Your task to perform on an android device: Search for a new phone on Amazon. Image 0: 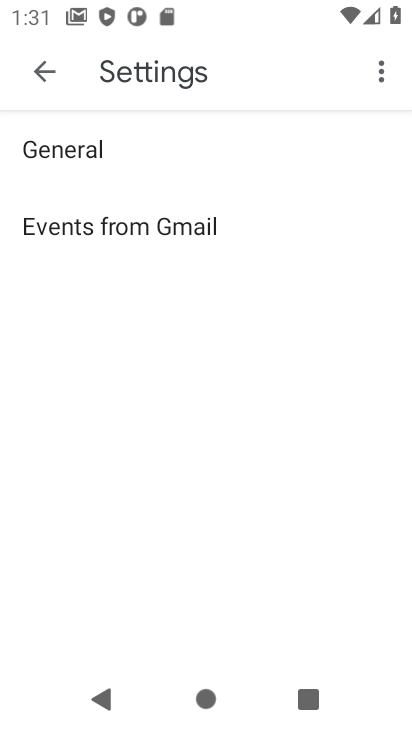
Step 0: press home button
Your task to perform on an android device: Search for a new phone on Amazon. Image 1: 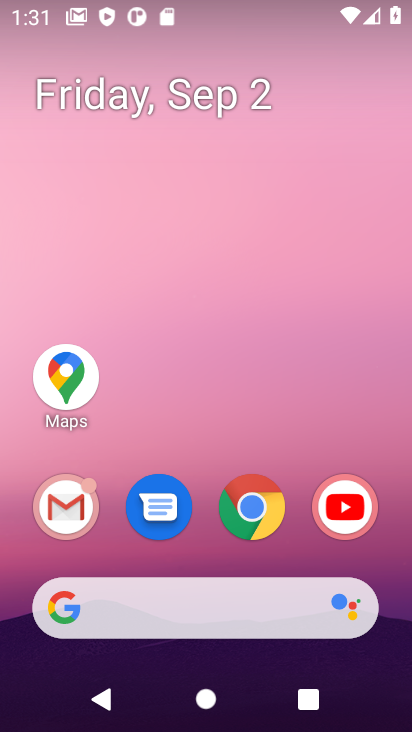
Step 1: click (264, 518)
Your task to perform on an android device: Search for a new phone on Amazon. Image 2: 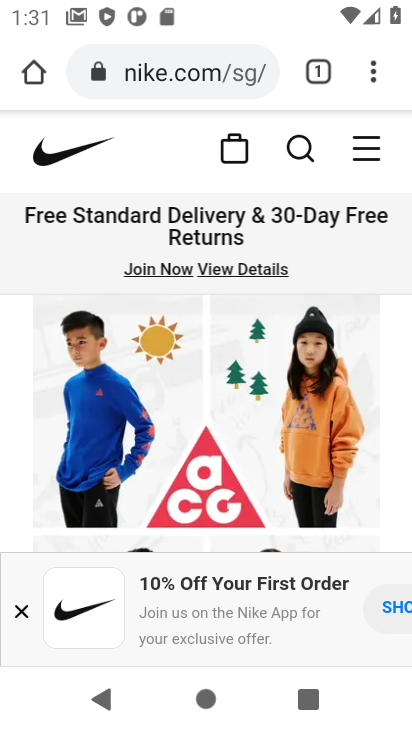
Step 2: click (227, 73)
Your task to perform on an android device: Search for a new phone on Amazon. Image 3: 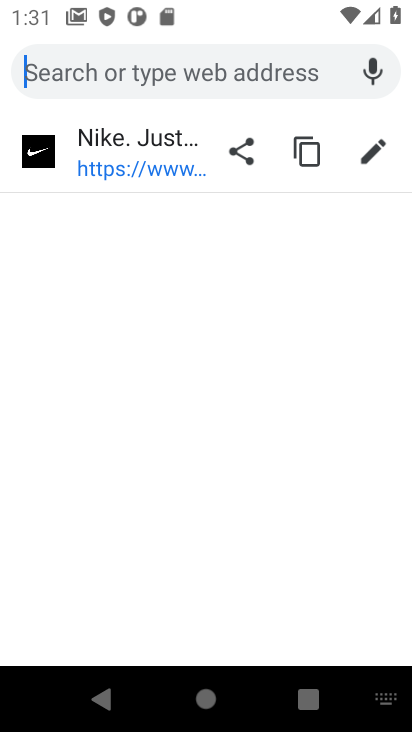
Step 3: type "amazone"
Your task to perform on an android device: Search for a new phone on Amazon. Image 4: 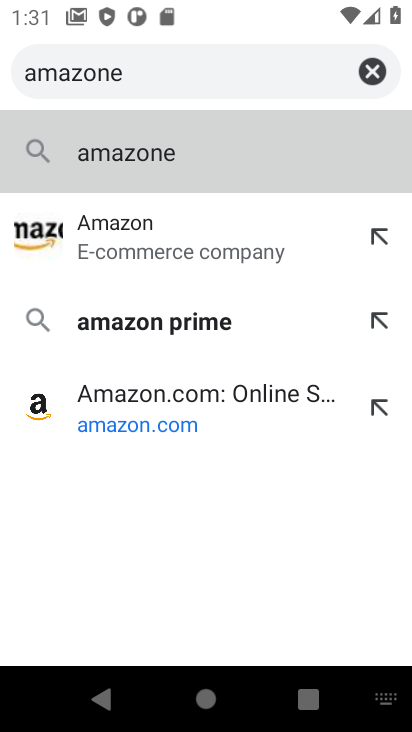
Step 4: click (151, 222)
Your task to perform on an android device: Search for a new phone on Amazon. Image 5: 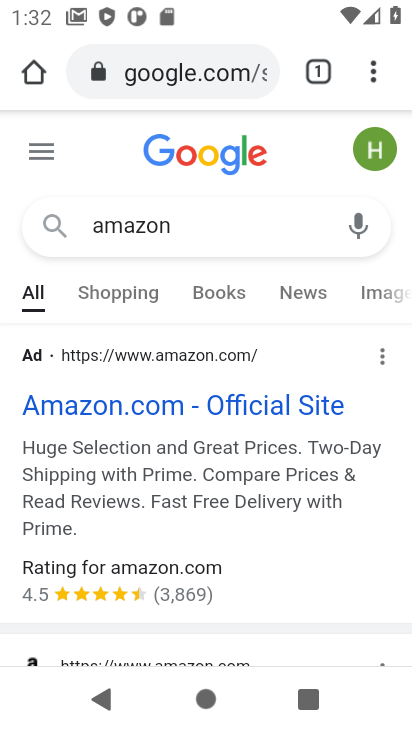
Step 5: click (152, 391)
Your task to perform on an android device: Search for a new phone on Amazon. Image 6: 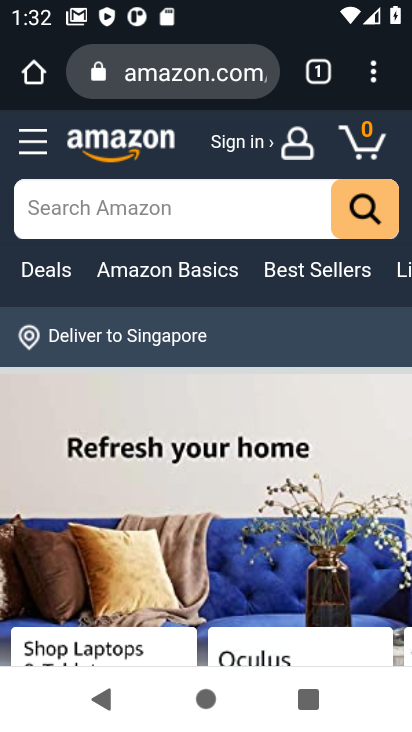
Step 6: click (180, 222)
Your task to perform on an android device: Search for a new phone on Amazon. Image 7: 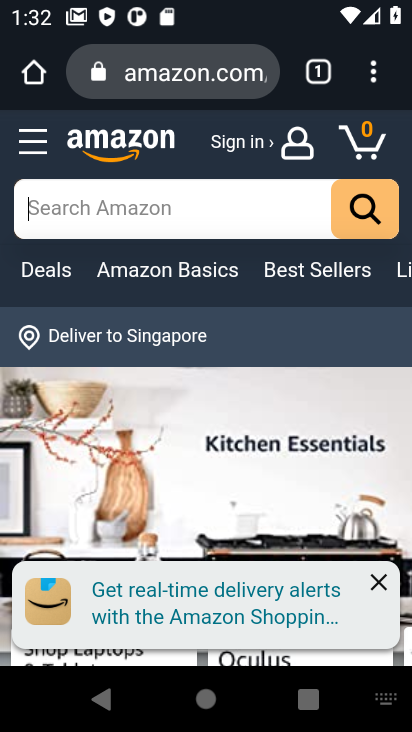
Step 7: type "mobile"
Your task to perform on an android device: Search for a new phone on Amazon. Image 8: 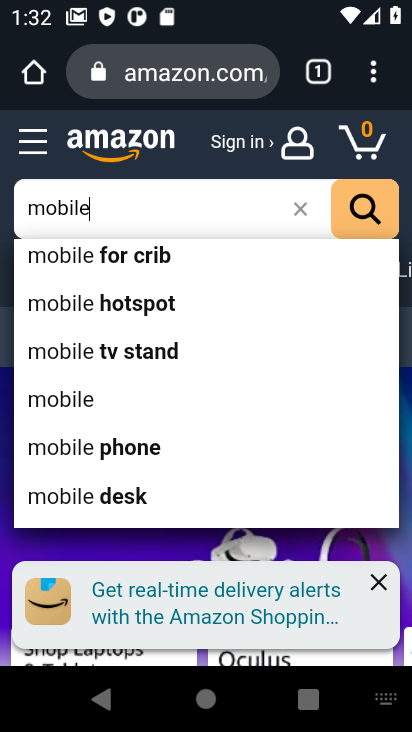
Step 8: click (121, 435)
Your task to perform on an android device: Search for a new phone on Amazon. Image 9: 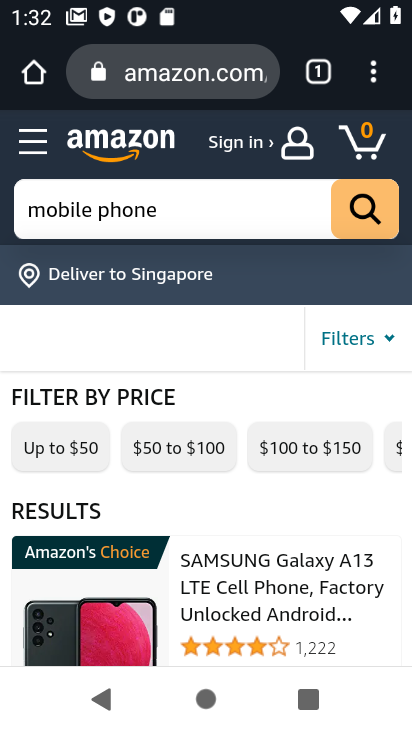
Step 9: click (216, 565)
Your task to perform on an android device: Search for a new phone on Amazon. Image 10: 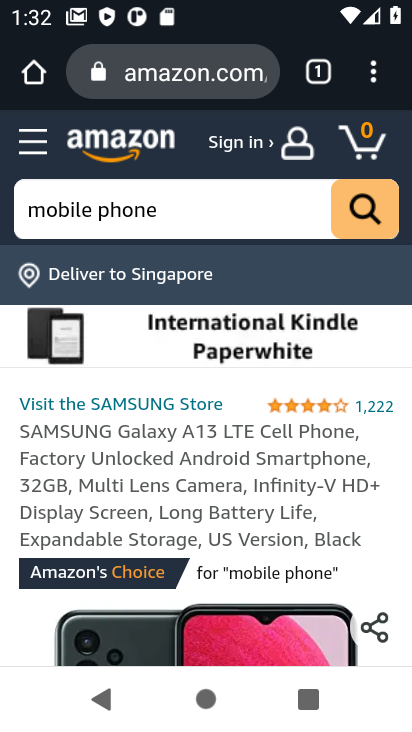
Step 10: task complete